Your task to perform on an android device: delete a single message in the gmail app Image 0: 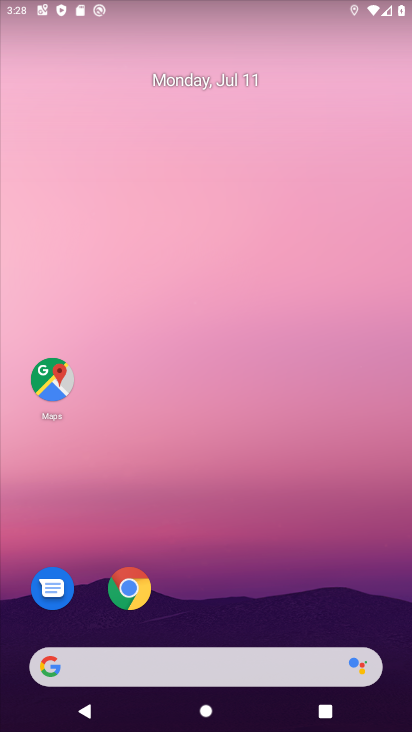
Step 0: click (224, 333)
Your task to perform on an android device: delete a single message in the gmail app Image 1: 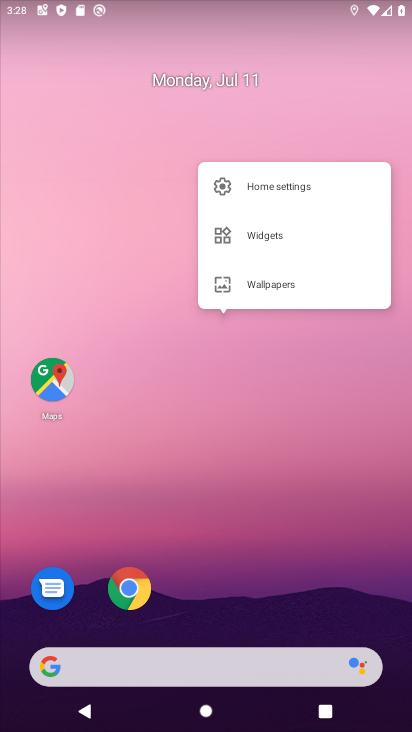
Step 1: drag from (219, 617) to (178, 265)
Your task to perform on an android device: delete a single message in the gmail app Image 2: 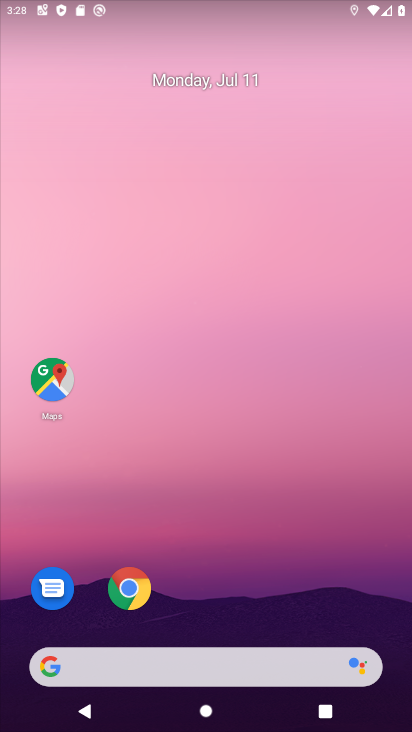
Step 2: drag from (207, 653) to (200, 354)
Your task to perform on an android device: delete a single message in the gmail app Image 3: 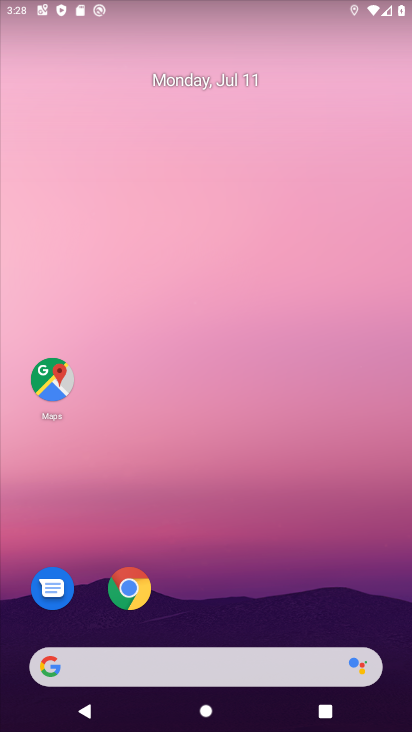
Step 3: drag from (180, 671) to (193, 307)
Your task to perform on an android device: delete a single message in the gmail app Image 4: 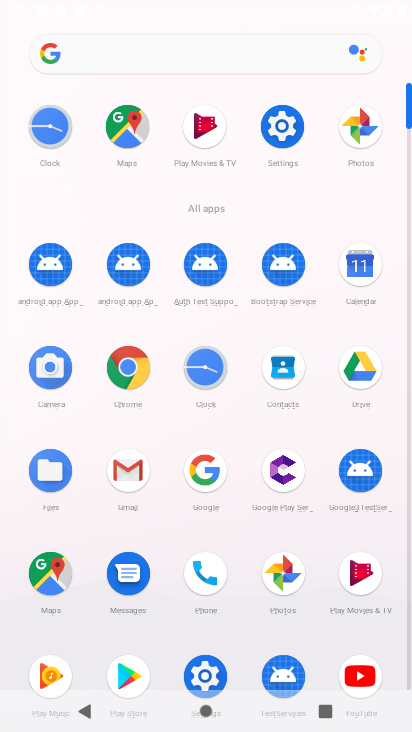
Step 4: click (129, 476)
Your task to perform on an android device: delete a single message in the gmail app Image 5: 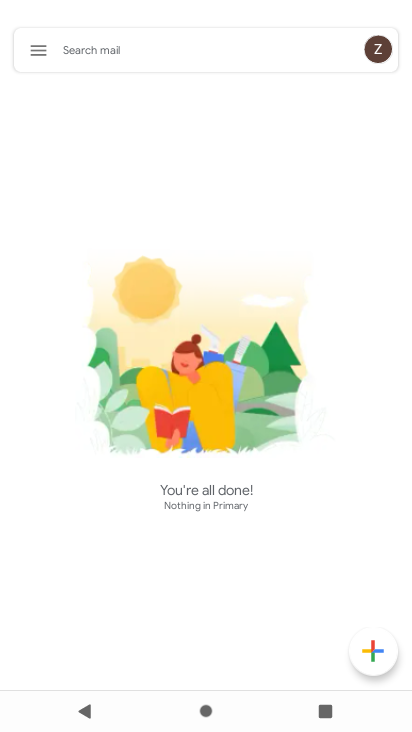
Step 5: click (33, 50)
Your task to perform on an android device: delete a single message in the gmail app Image 6: 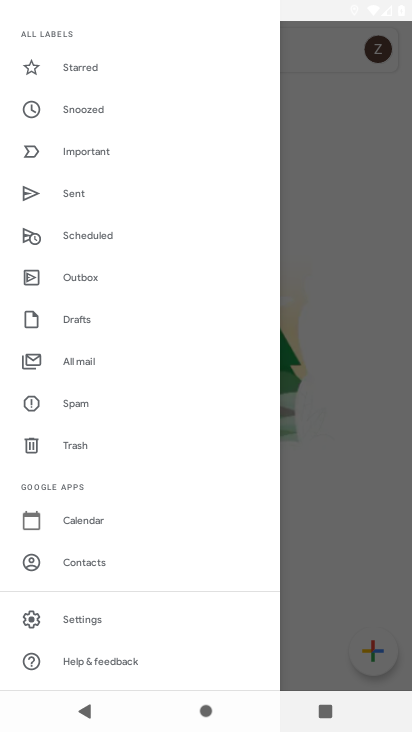
Step 6: click (326, 278)
Your task to perform on an android device: delete a single message in the gmail app Image 7: 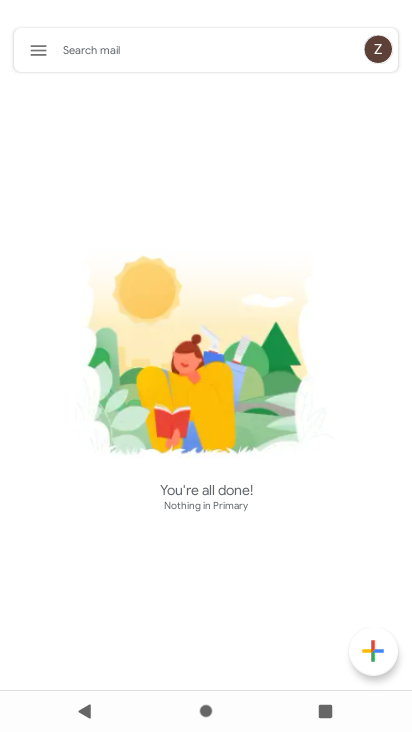
Step 7: task complete